Your task to perform on an android device: turn on wifi Image 0: 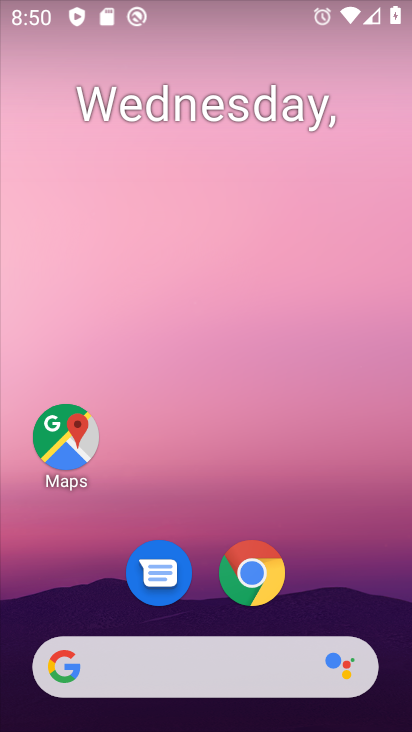
Step 0: drag from (279, 625) to (393, 200)
Your task to perform on an android device: turn on wifi Image 1: 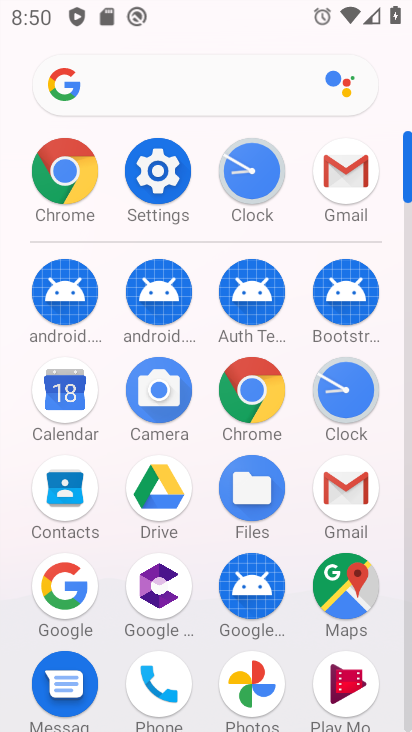
Step 1: click (165, 193)
Your task to perform on an android device: turn on wifi Image 2: 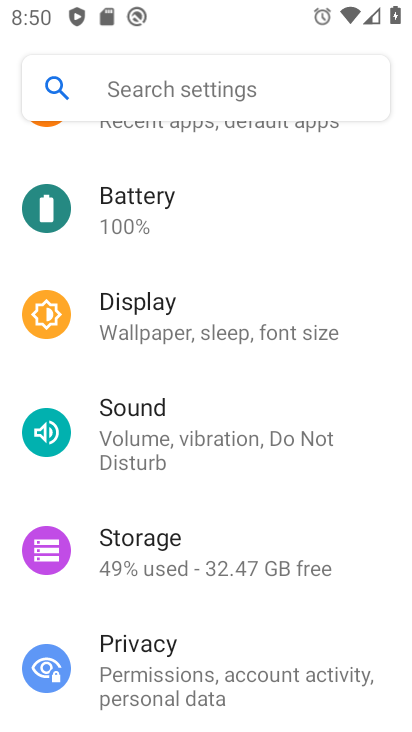
Step 2: drag from (220, 407) to (302, 688)
Your task to perform on an android device: turn on wifi Image 3: 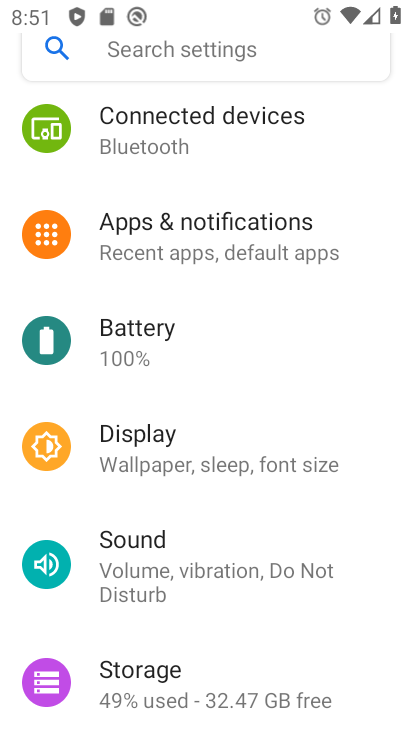
Step 3: drag from (270, 227) to (214, 721)
Your task to perform on an android device: turn on wifi Image 4: 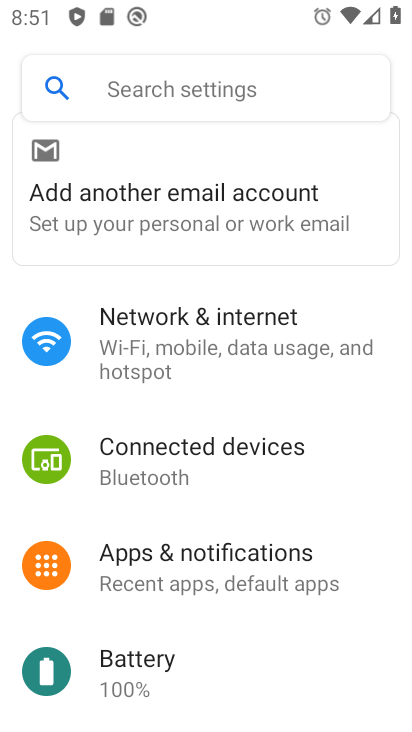
Step 4: click (237, 324)
Your task to perform on an android device: turn on wifi Image 5: 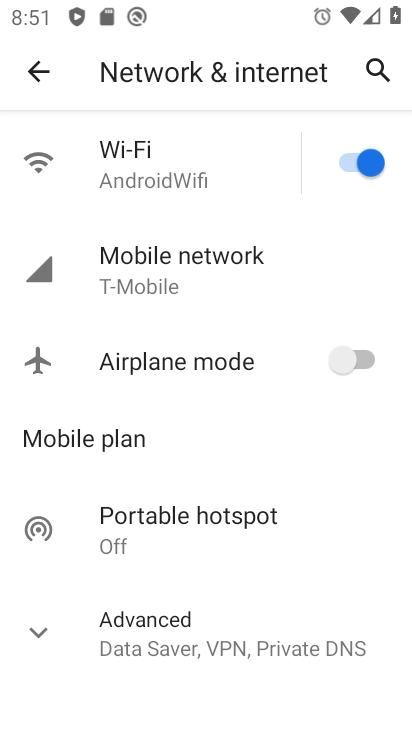
Step 5: task complete